Your task to perform on an android device: change the upload size in google photos Image 0: 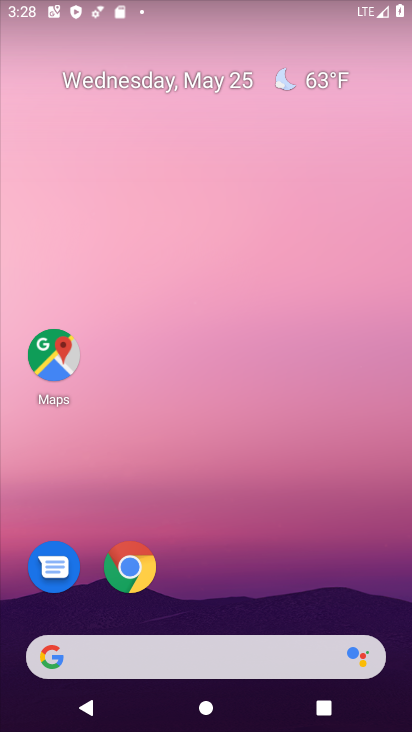
Step 0: drag from (278, 581) to (258, 73)
Your task to perform on an android device: change the upload size in google photos Image 1: 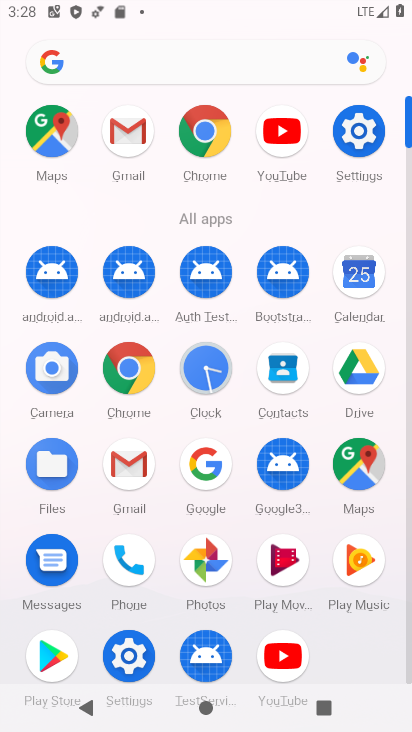
Step 1: click (206, 549)
Your task to perform on an android device: change the upload size in google photos Image 2: 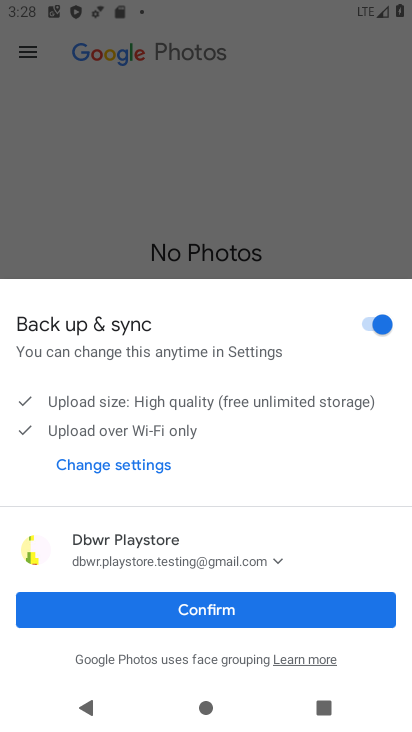
Step 2: click (292, 598)
Your task to perform on an android device: change the upload size in google photos Image 3: 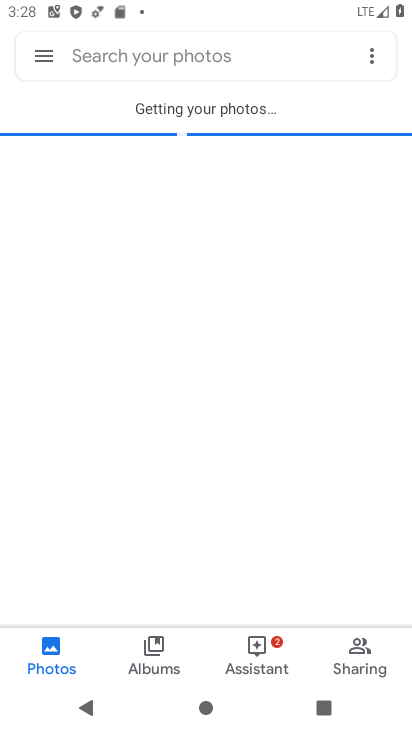
Step 3: click (48, 53)
Your task to perform on an android device: change the upload size in google photos Image 4: 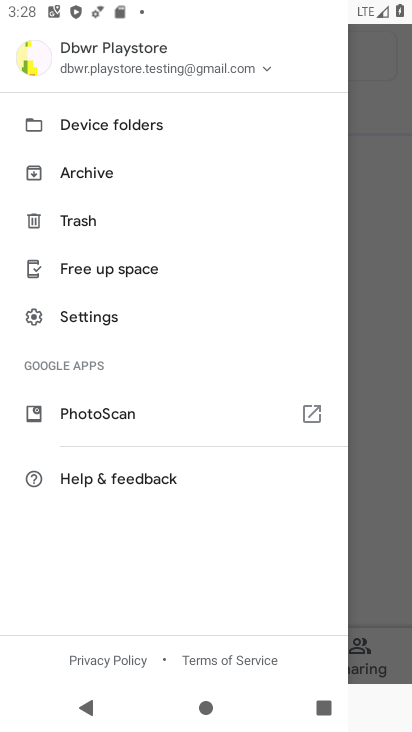
Step 4: click (98, 313)
Your task to perform on an android device: change the upload size in google photos Image 5: 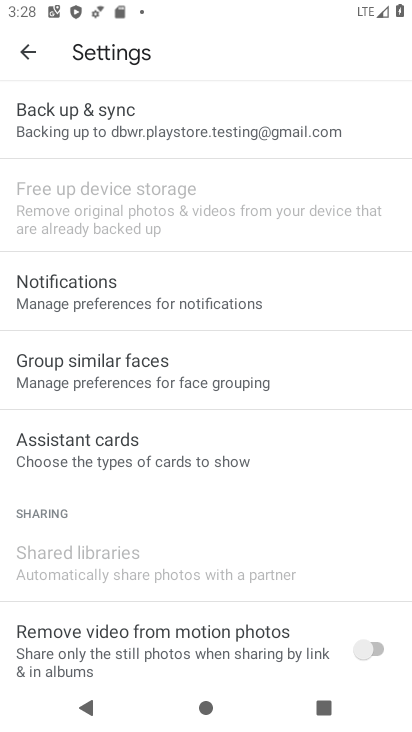
Step 5: drag from (340, 558) to (312, 157)
Your task to perform on an android device: change the upload size in google photos Image 6: 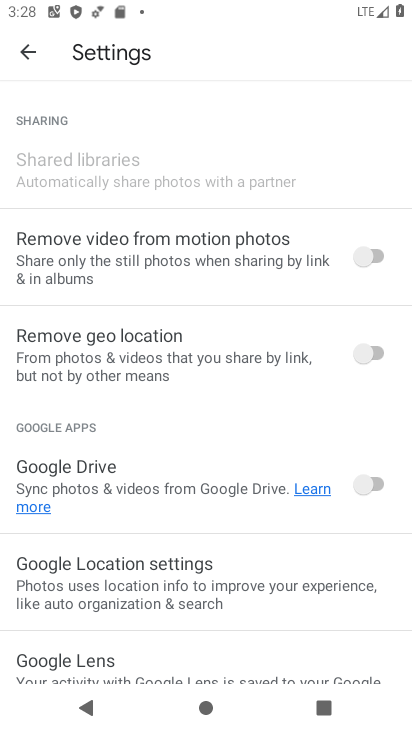
Step 6: drag from (302, 517) to (296, 147)
Your task to perform on an android device: change the upload size in google photos Image 7: 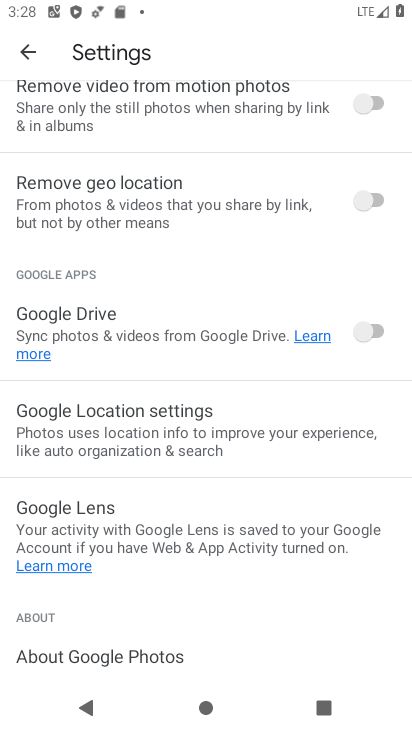
Step 7: drag from (207, 89) to (178, 621)
Your task to perform on an android device: change the upload size in google photos Image 8: 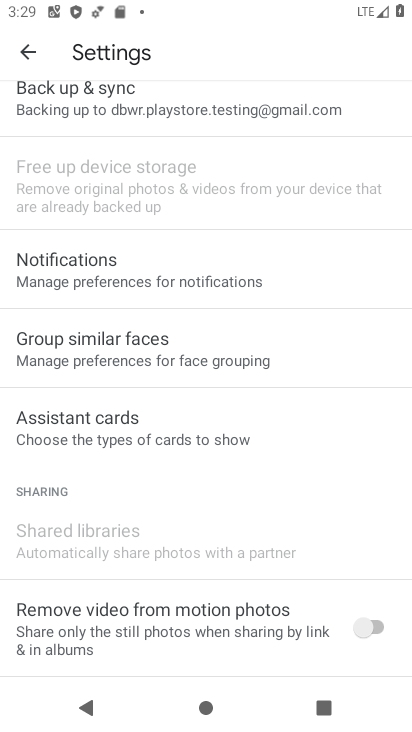
Step 8: click (132, 110)
Your task to perform on an android device: change the upload size in google photos Image 9: 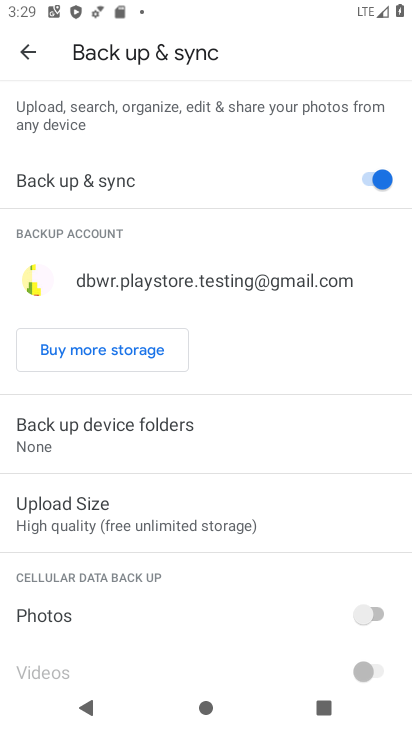
Step 9: click (121, 509)
Your task to perform on an android device: change the upload size in google photos Image 10: 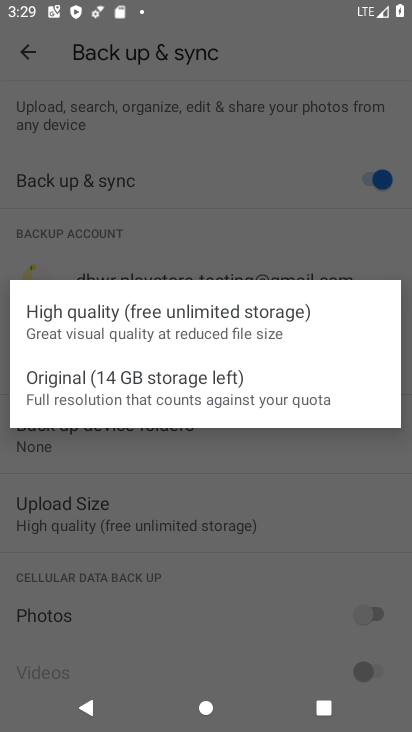
Step 10: click (120, 381)
Your task to perform on an android device: change the upload size in google photos Image 11: 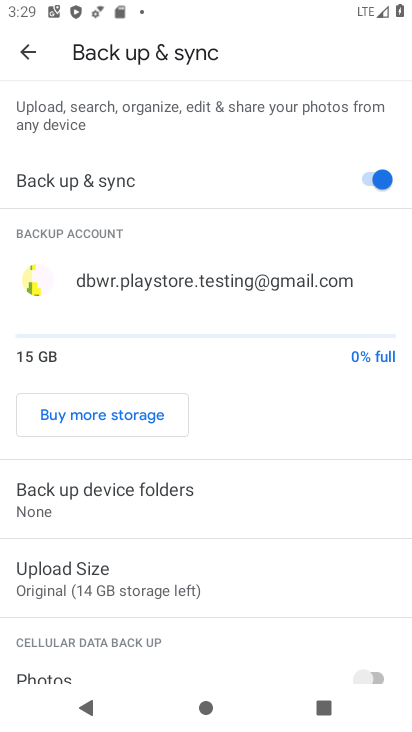
Step 11: task complete